Your task to perform on an android device: Search for Mexican restaurants on Maps Image 0: 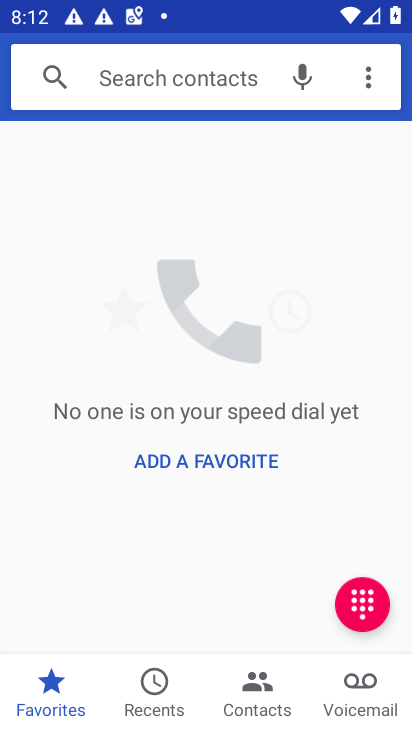
Step 0: press home button
Your task to perform on an android device: Search for Mexican restaurants on Maps Image 1: 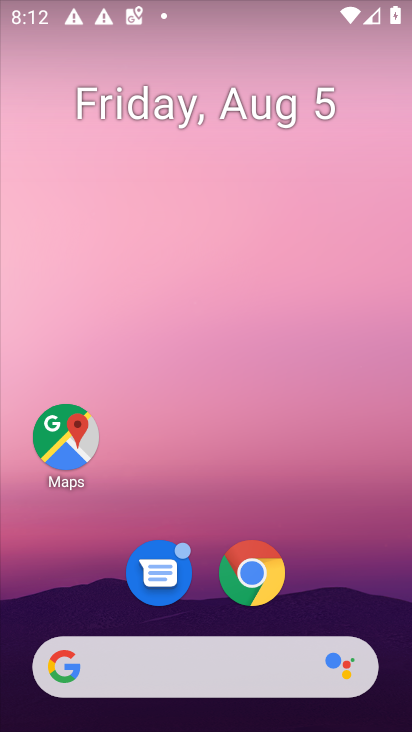
Step 1: click (67, 444)
Your task to perform on an android device: Search for Mexican restaurants on Maps Image 2: 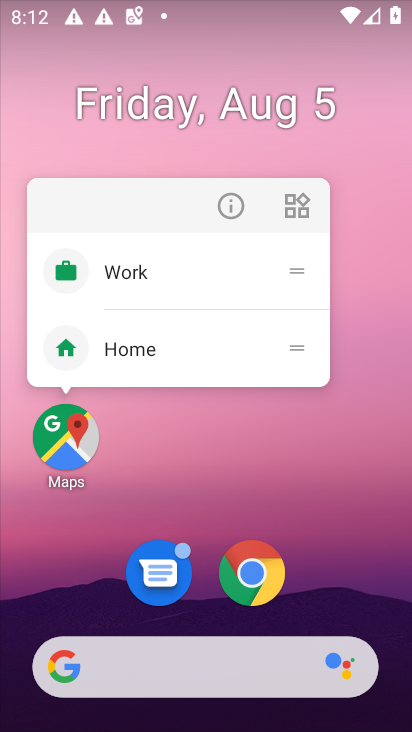
Step 2: click (68, 443)
Your task to perform on an android device: Search for Mexican restaurants on Maps Image 3: 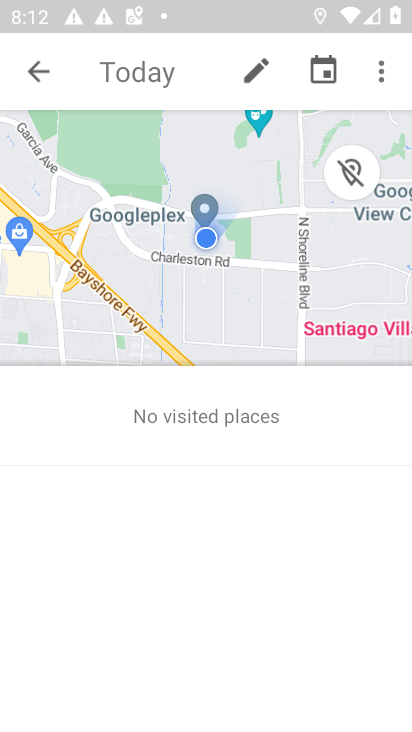
Step 3: press back button
Your task to perform on an android device: Search for Mexican restaurants on Maps Image 4: 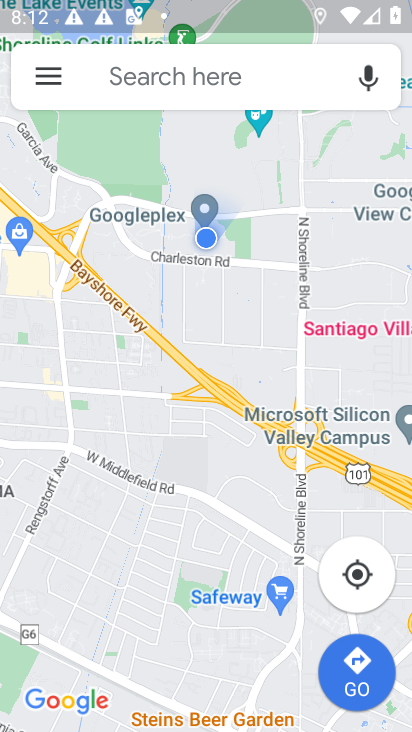
Step 4: click (132, 71)
Your task to perform on an android device: Search for Mexican restaurants on Maps Image 5: 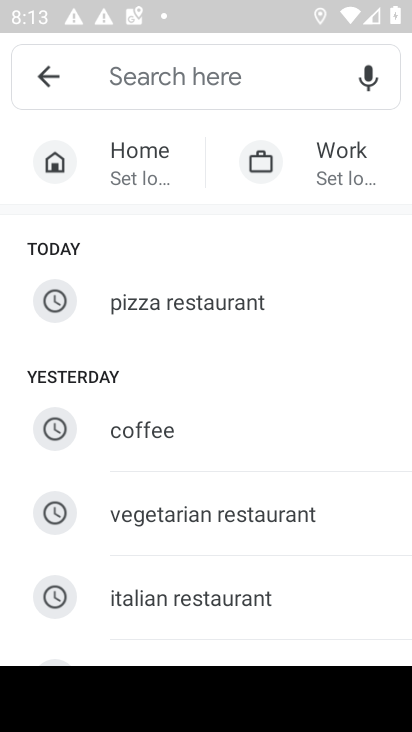
Step 5: type "Mexican restauarnts"
Your task to perform on an android device: Search for Mexican restaurants on Maps Image 6: 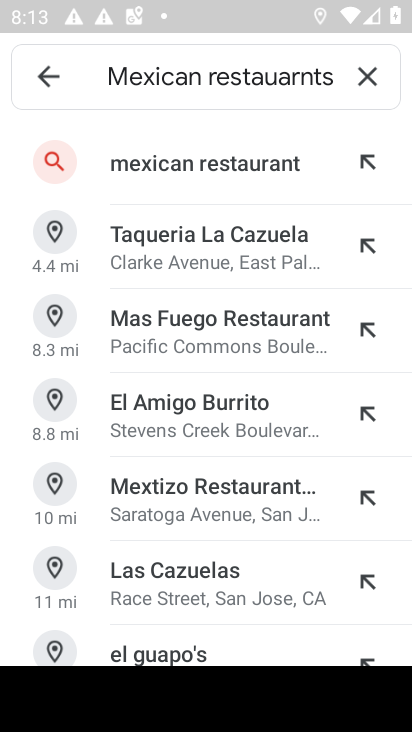
Step 6: click (250, 169)
Your task to perform on an android device: Search for Mexican restaurants on Maps Image 7: 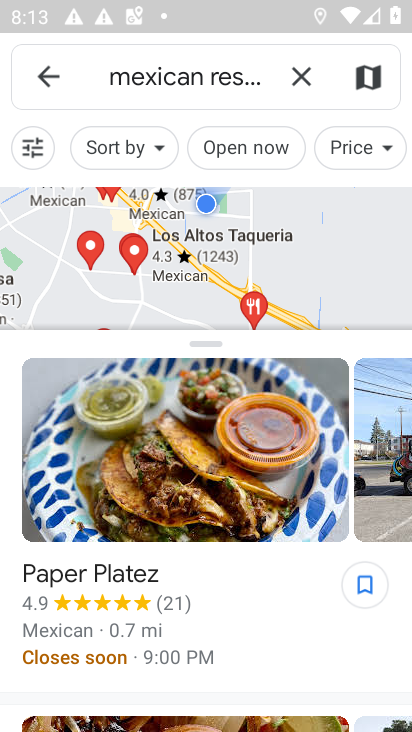
Step 7: task complete